Your task to perform on an android device: Show me recent news Image 0: 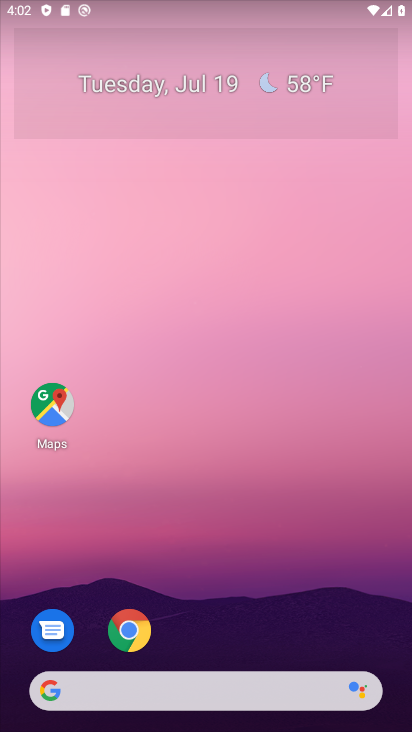
Step 0: click (65, 685)
Your task to perform on an android device: Show me recent news Image 1: 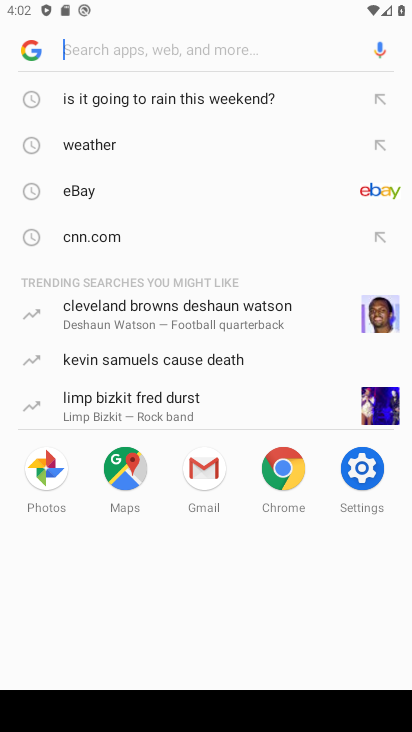
Step 1: type "recent news"
Your task to perform on an android device: Show me recent news Image 2: 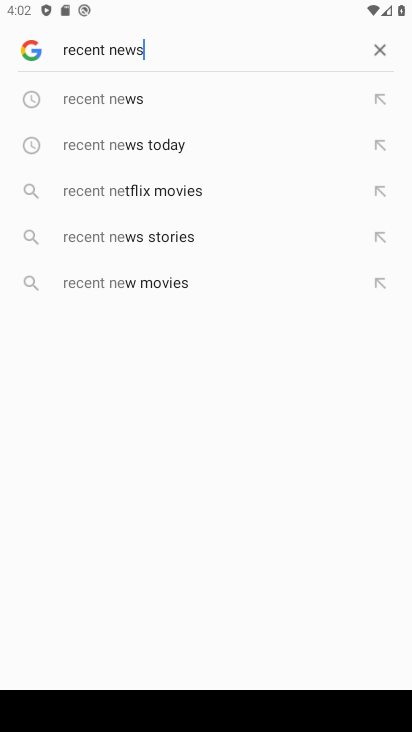
Step 2: type ""
Your task to perform on an android device: Show me recent news Image 3: 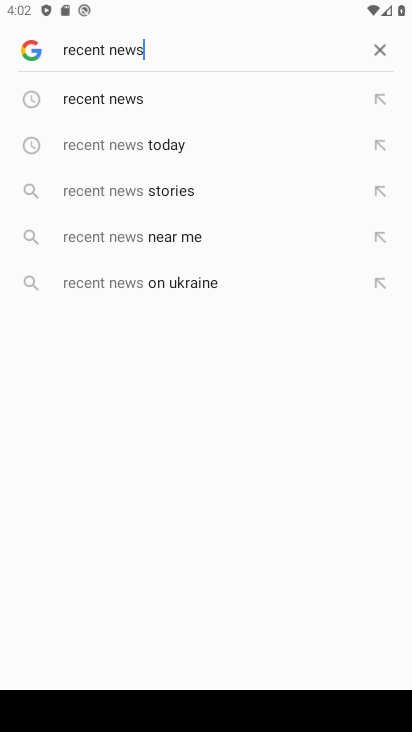
Step 3: click (112, 101)
Your task to perform on an android device: Show me recent news Image 4: 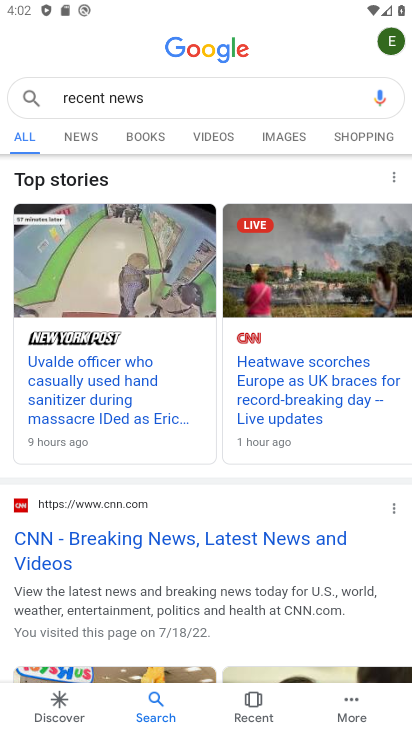
Step 4: task complete